Your task to perform on an android device: Open sound settings Image 0: 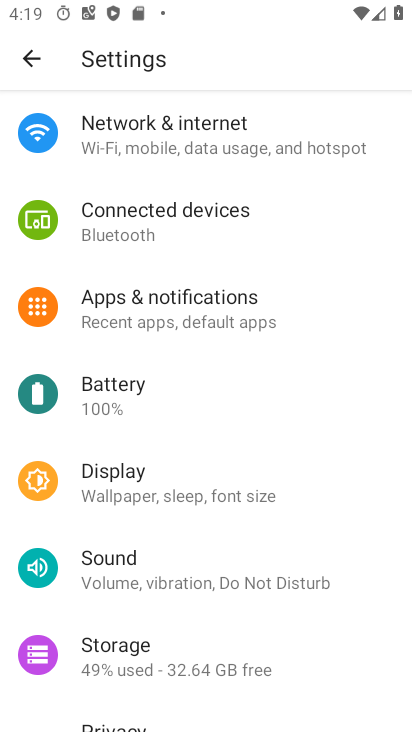
Step 0: click (127, 580)
Your task to perform on an android device: Open sound settings Image 1: 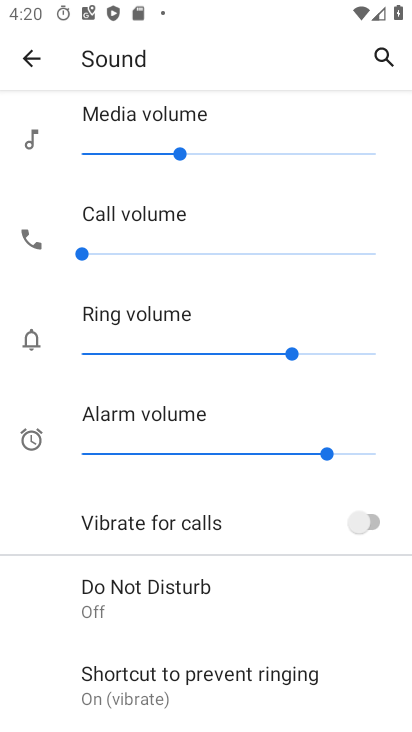
Step 1: task complete